Your task to perform on an android device: Search for sushi restaurants on Maps Image 0: 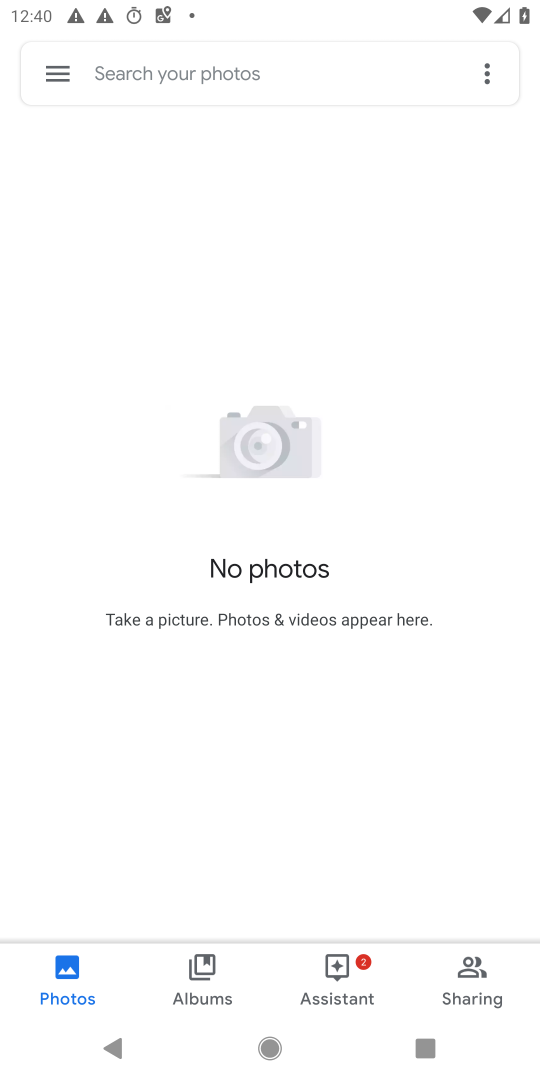
Step 0: press home button
Your task to perform on an android device: Search for sushi restaurants on Maps Image 1: 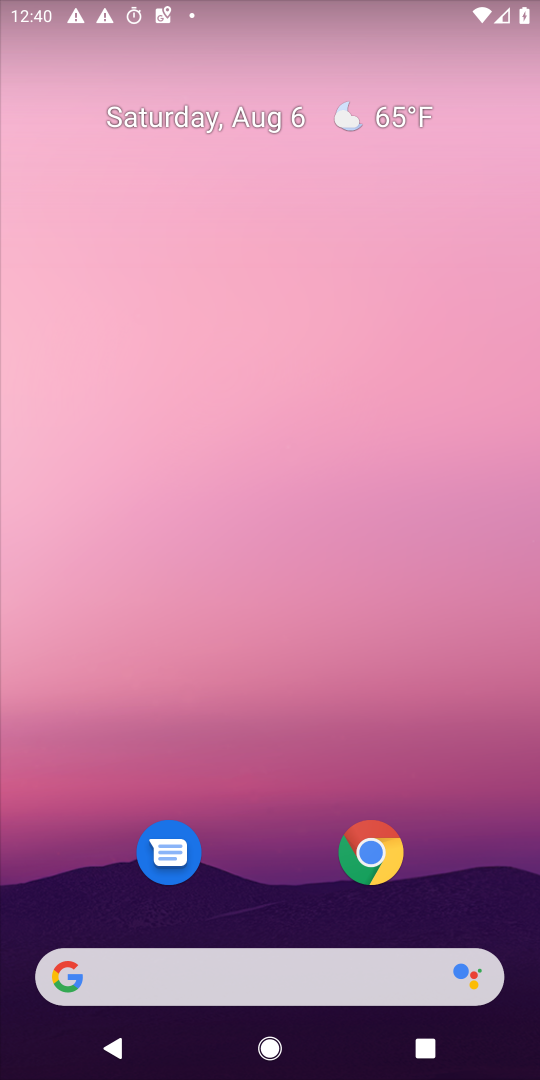
Step 1: drag from (340, 970) to (301, 298)
Your task to perform on an android device: Search for sushi restaurants on Maps Image 2: 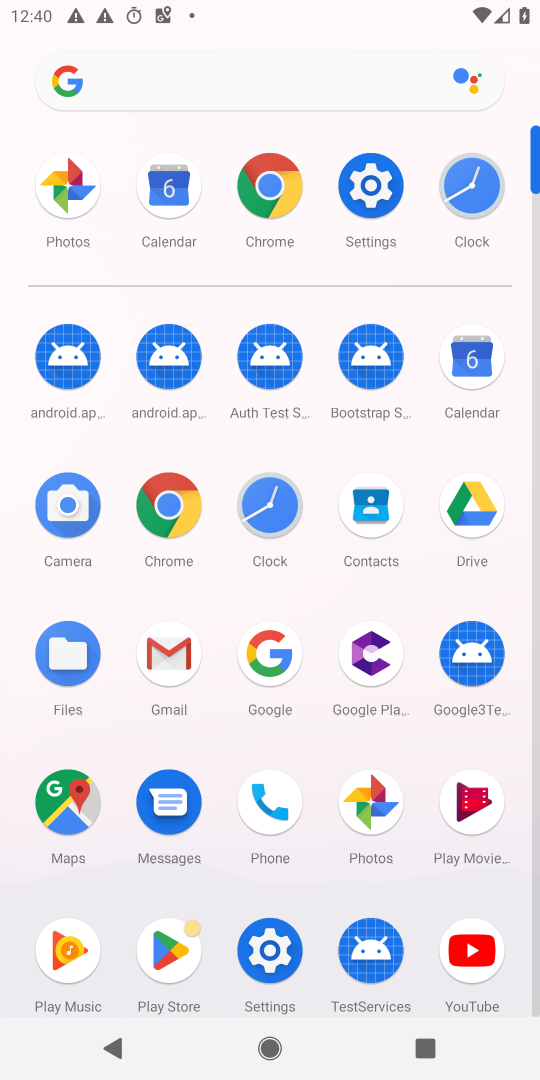
Step 2: click (69, 792)
Your task to perform on an android device: Search for sushi restaurants on Maps Image 3: 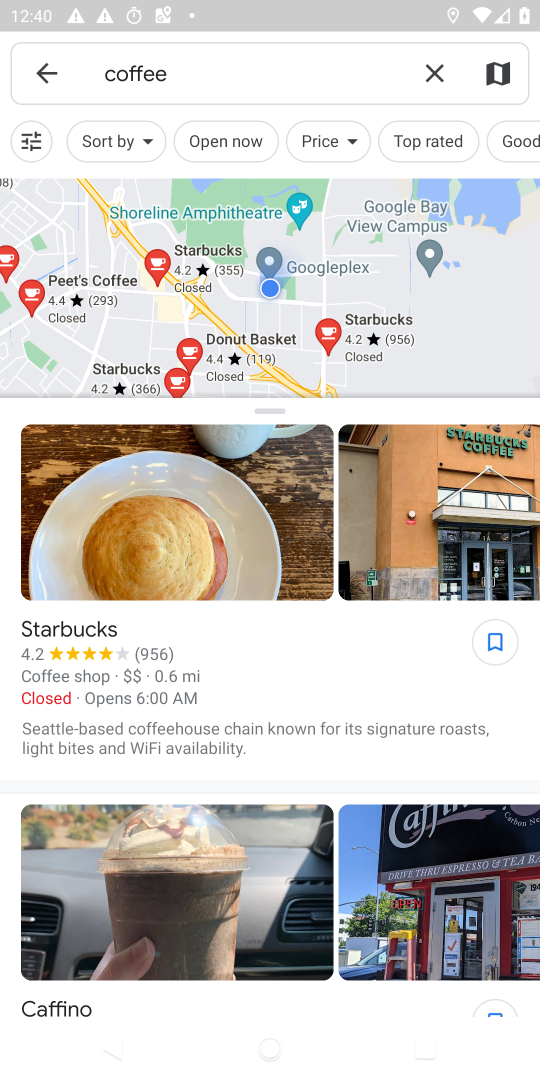
Step 3: click (422, 63)
Your task to perform on an android device: Search for sushi restaurants on Maps Image 4: 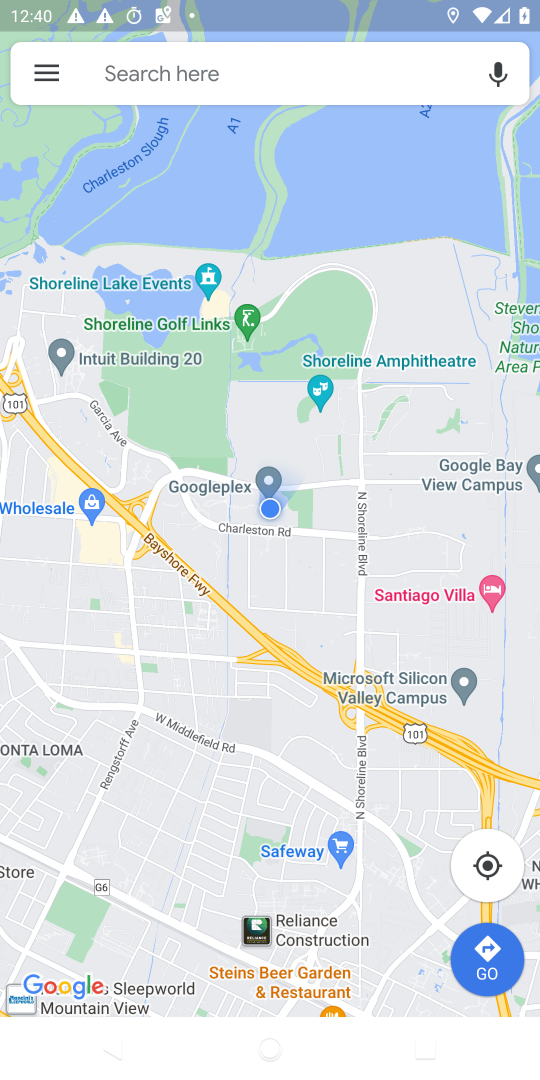
Step 4: click (210, 73)
Your task to perform on an android device: Search for sushi restaurants on Maps Image 5: 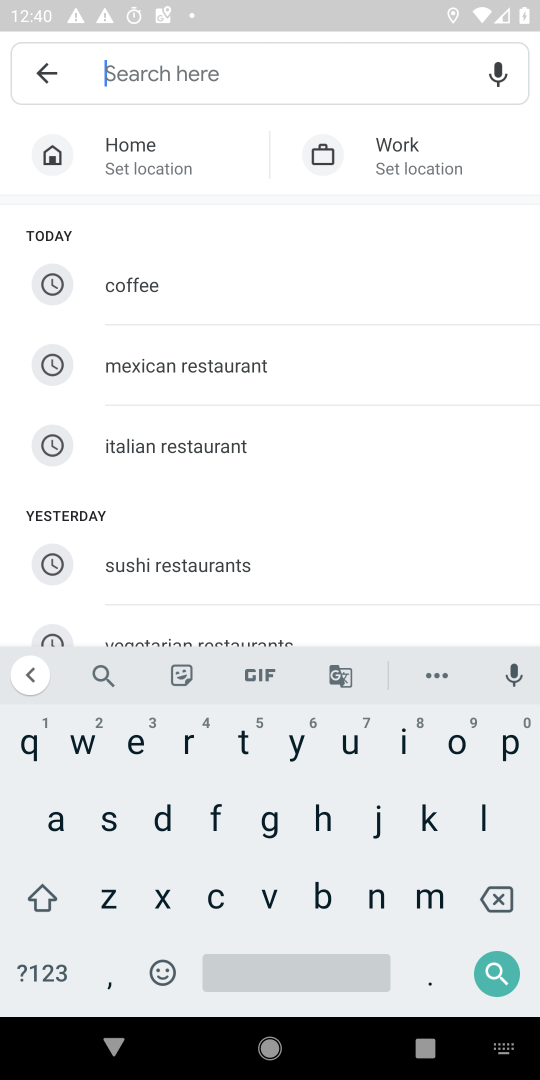
Step 5: click (153, 576)
Your task to perform on an android device: Search for sushi restaurants on Maps Image 6: 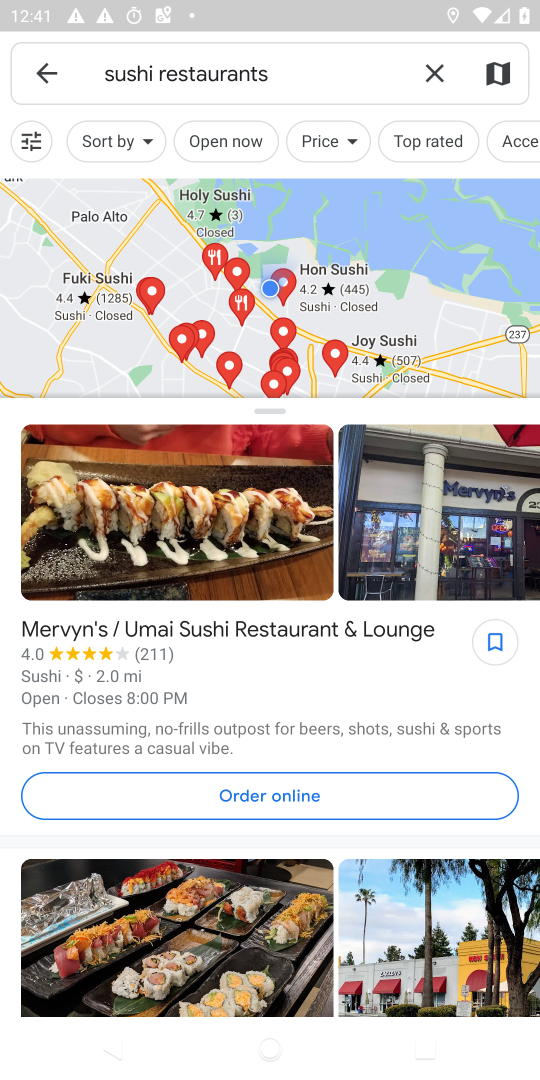
Step 6: task complete